Your task to perform on an android device: What's the weather going to be tomorrow? Image 0: 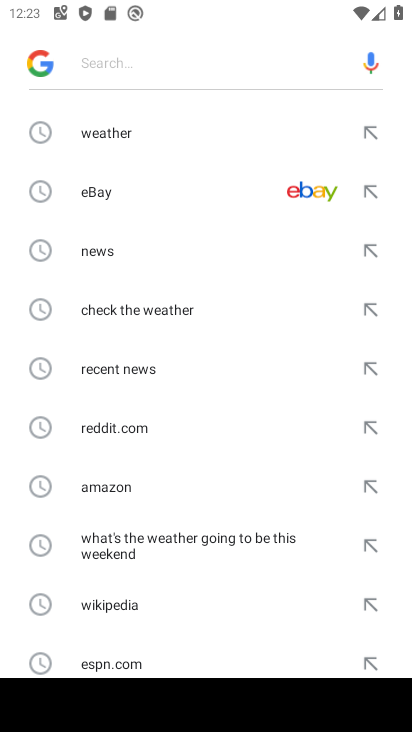
Step 0: press home button
Your task to perform on an android device: What's the weather going to be tomorrow? Image 1: 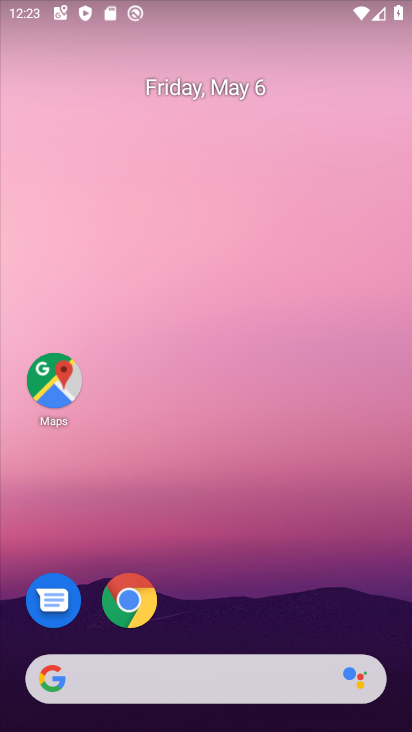
Step 1: click (223, 673)
Your task to perform on an android device: What's the weather going to be tomorrow? Image 2: 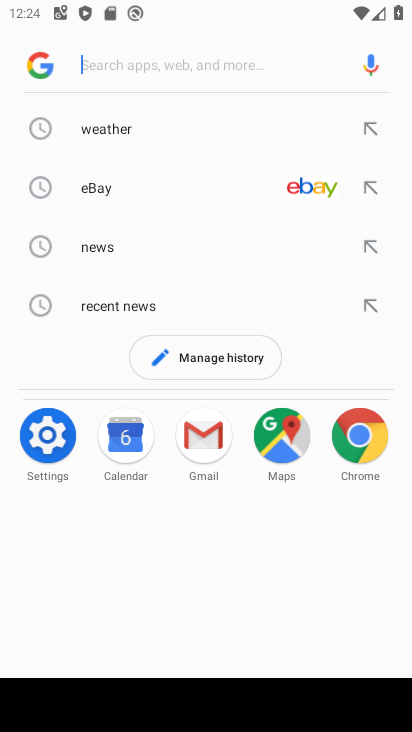
Step 2: click (376, 119)
Your task to perform on an android device: What's the weather going to be tomorrow? Image 3: 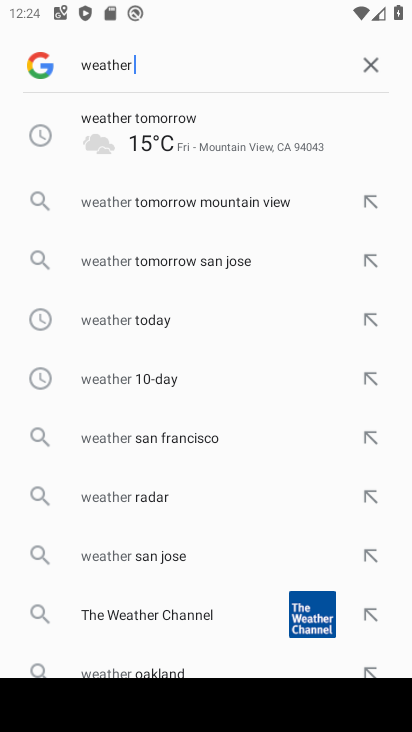
Step 3: click (245, 125)
Your task to perform on an android device: What's the weather going to be tomorrow? Image 4: 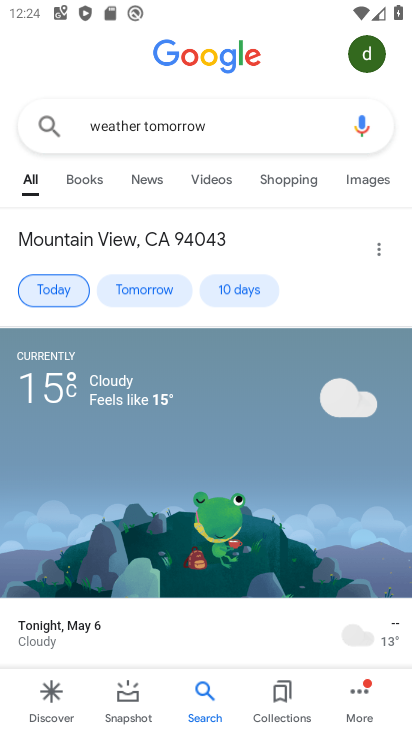
Step 4: click (159, 295)
Your task to perform on an android device: What's the weather going to be tomorrow? Image 5: 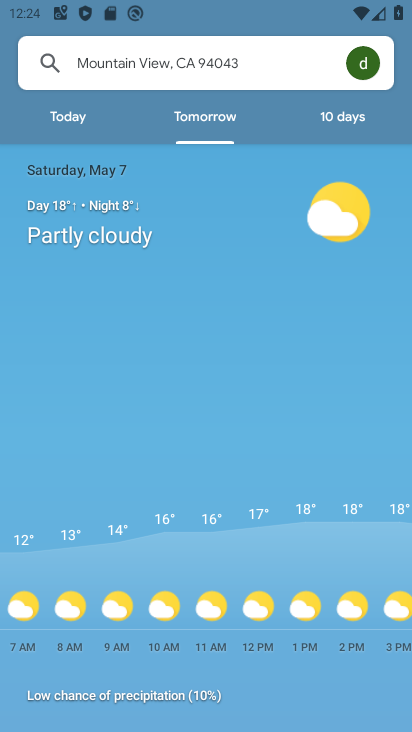
Step 5: task complete